Your task to perform on an android device: turn on location history Image 0: 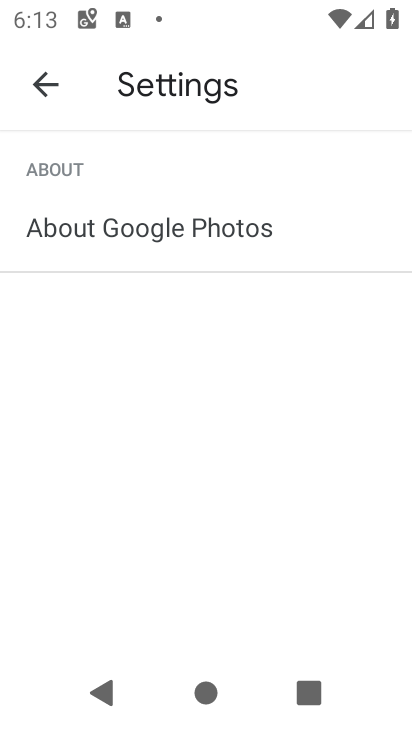
Step 0: press home button
Your task to perform on an android device: turn on location history Image 1: 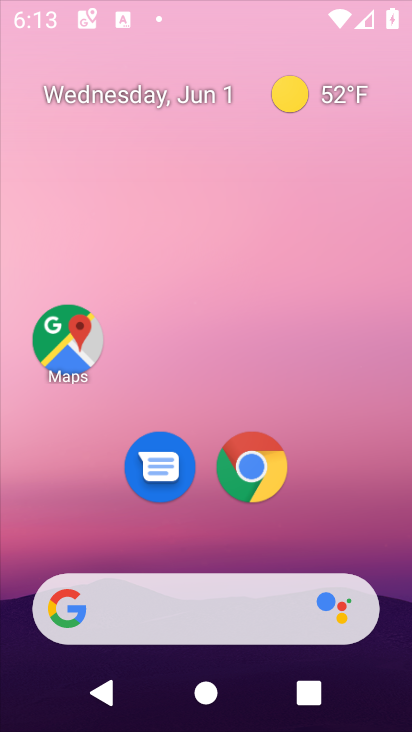
Step 1: drag from (313, 515) to (244, 32)
Your task to perform on an android device: turn on location history Image 2: 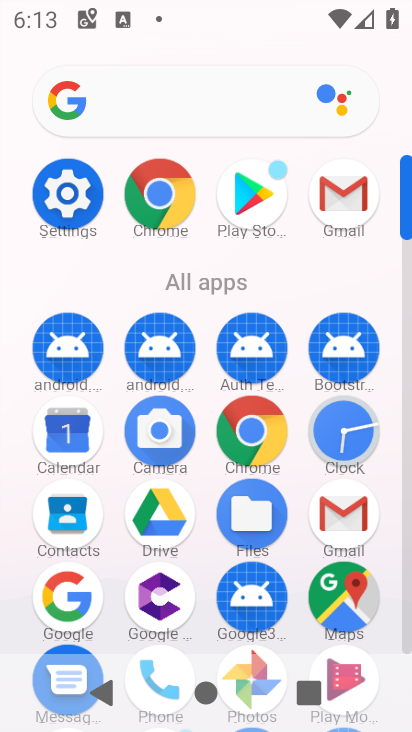
Step 2: click (55, 207)
Your task to perform on an android device: turn on location history Image 3: 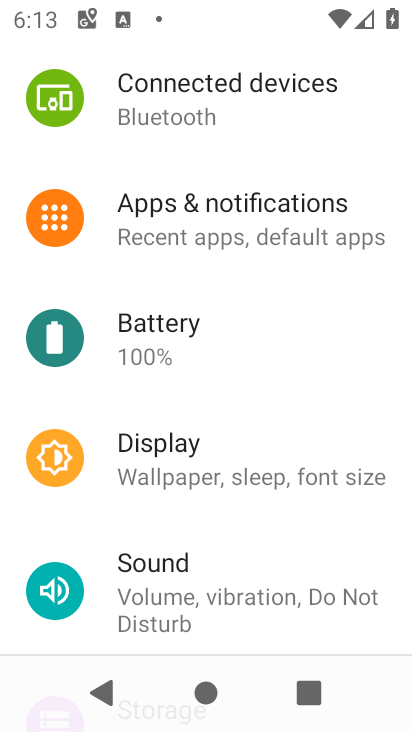
Step 3: drag from (245, 471) to (263, 52)
Your task to perform on an android device: turn on location history Image 4: 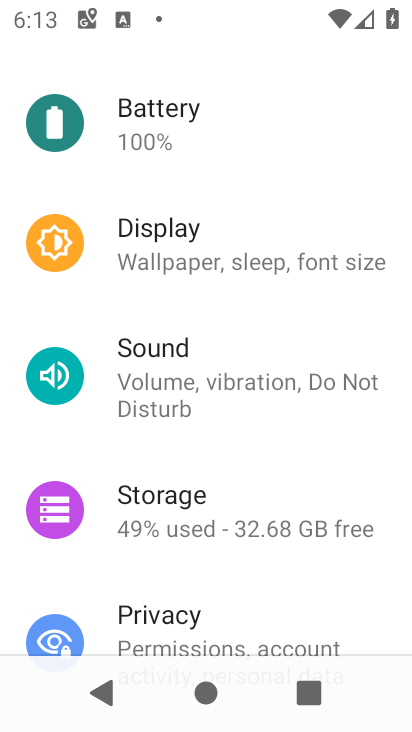
Step 4: drag from (271, 491) to (237, 71)
Your task to perform on an android device: turn on location history Image 5: 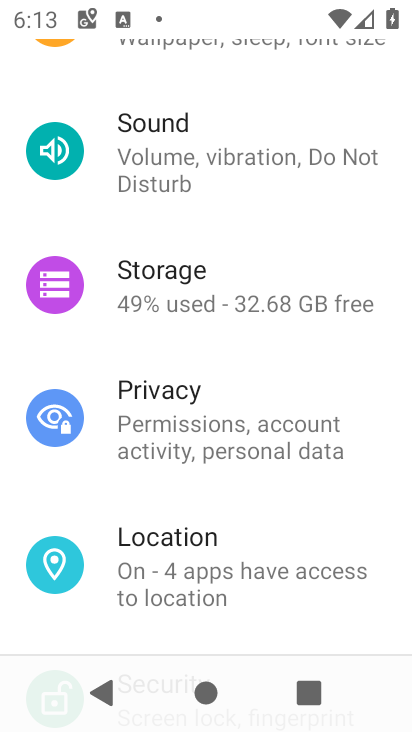
Step 5: click (221, 537)
Your task to perform on an android device: turn on location history Image 6: 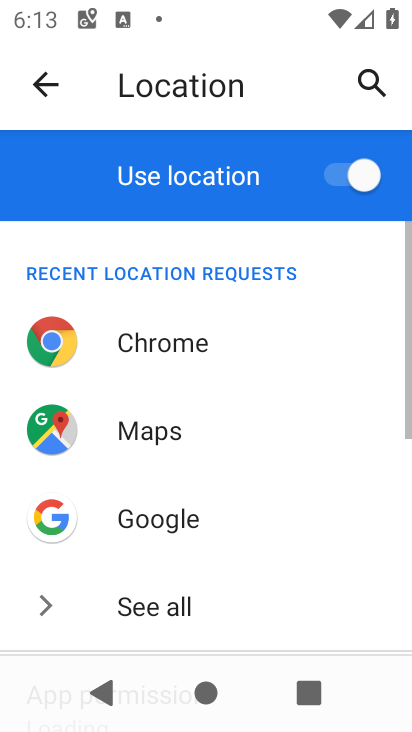
Step 6: drag from (309, 548) to (271, 34)
Your task to perform on an android device: turn on location history Image 7: 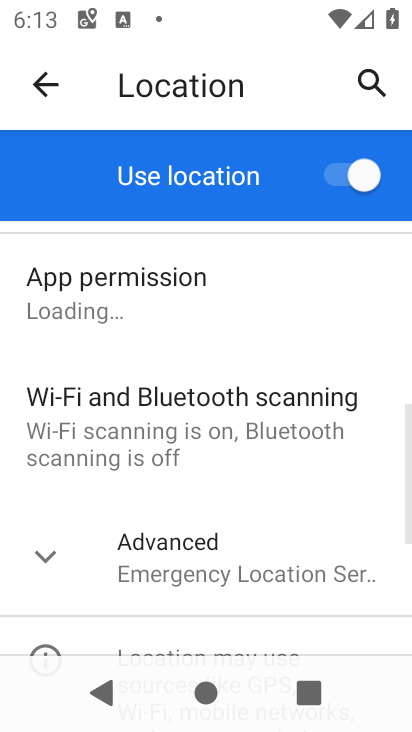
Step 7: drag from (225, 511) to (245, 271)
Your task to perform on an android device: turn on location history Image 8: 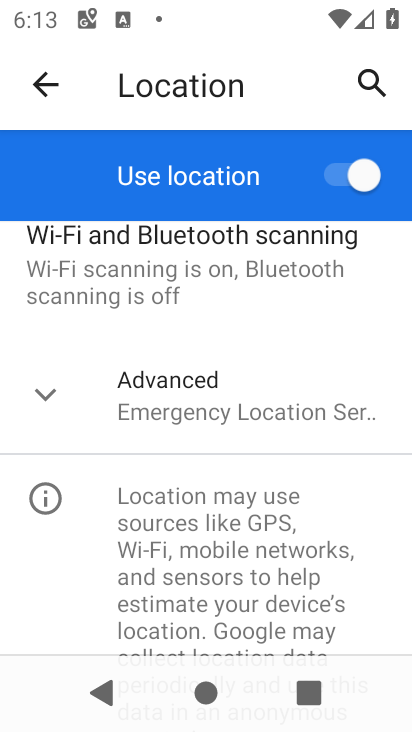
Step 8: click (223, 386)
Your task to perform on an android device: turn on location history Image 9: 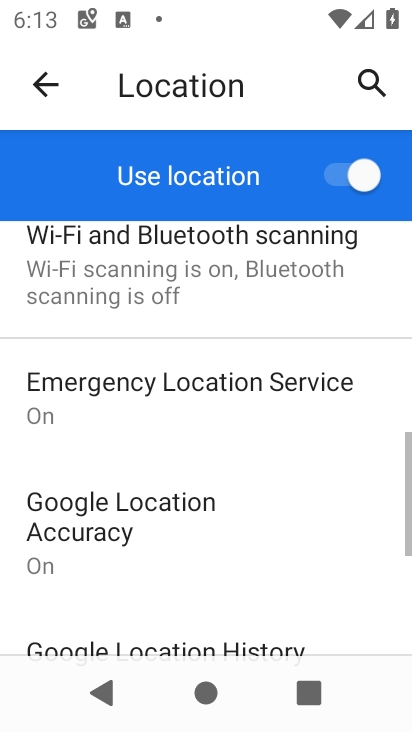
Step 9: drag from (283, 605) to (266, 231)
Your task to perform on an android device: turn on location history Image 10: 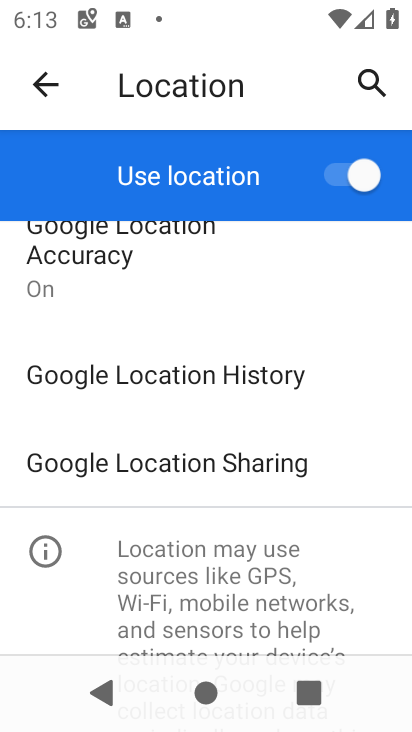
Step 10: click (239, 378)
Your task to perform on an android device: turn on location history Image 11: 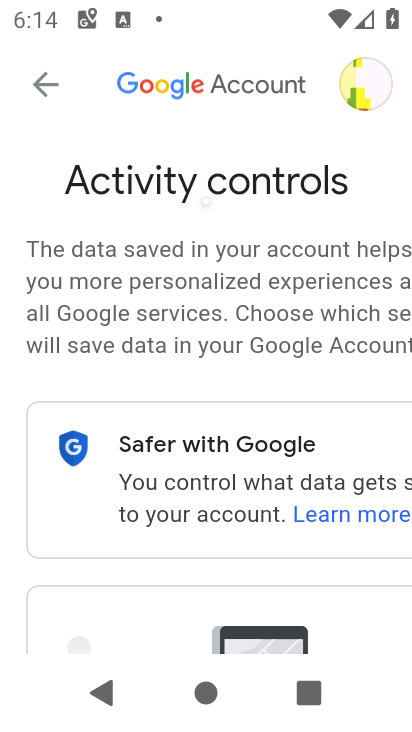
Step 11: drag from (206, 428) to (202, 86)
Your task to perform on an android device: turn on location history Image 12: 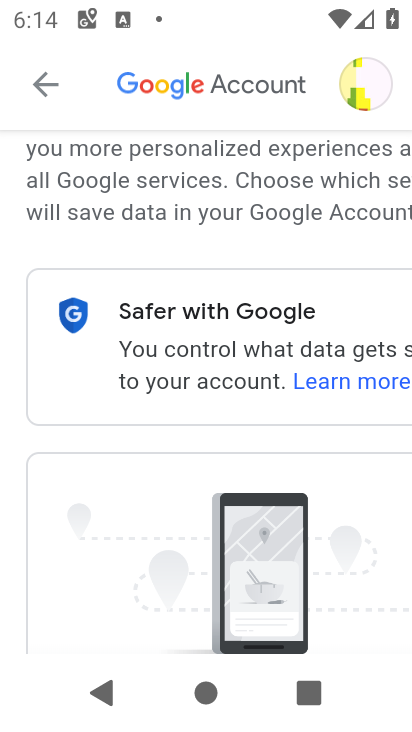
Step 12: drag from (231, 540) to (250, 120)
Your task to perform on an android device: turn on location history Image 13: 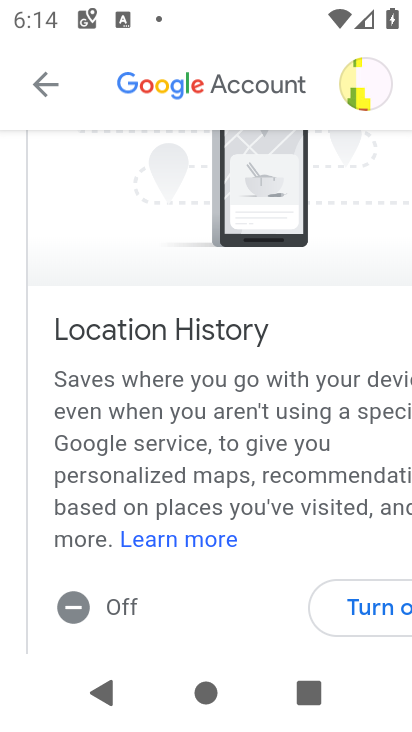
Step 13: click (379, 604)
Your task to perform on an android device: turn on location history Image 14: 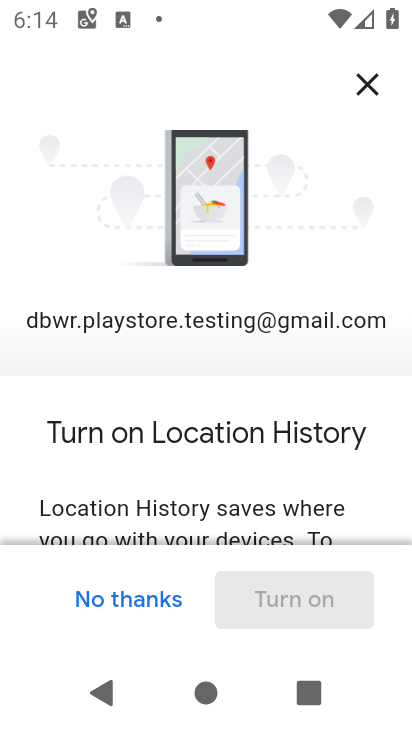
Step 14: drag from (202, 498) to (135, 2)
Your task to perform on an android device: turn on location history Image 15: 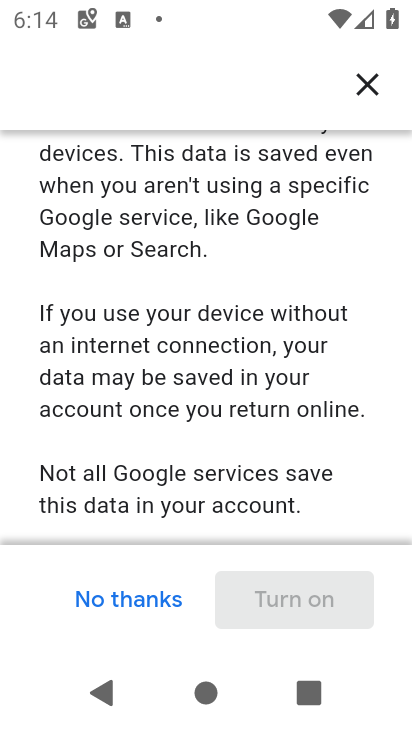
Step 15: click (275, 30)
Your task to perform on an android device: turn on location history Image 16: 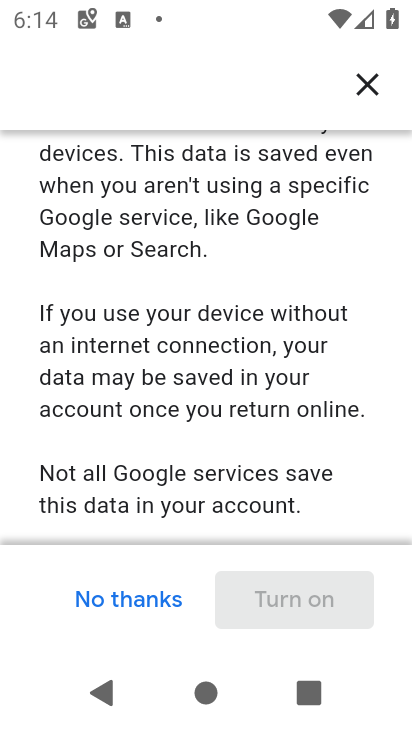
Step 16: drag from (288, 490) to (279, 151)
Your task to perform on an android device: turn on location history Image 17: 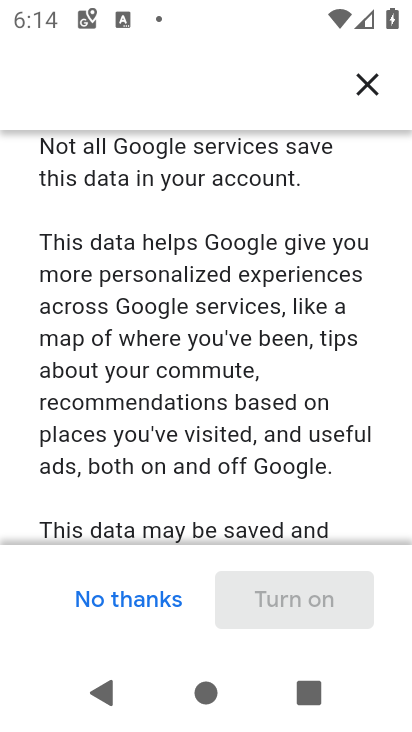
Step 17: drag from (296, 492) to (287, 131)
Your task to perform on an android device: turn on location history Image 18: 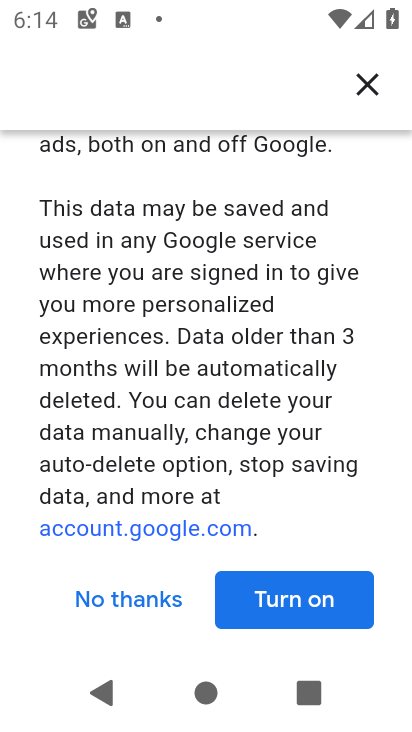
Step 18: click (311, 609)
Your task to perform on an android device: turn on location history Image 19: 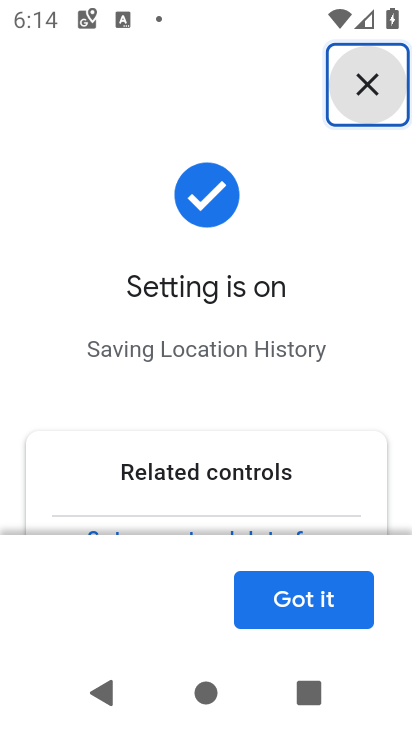
Step 19: click (324, 600)
Your task to perform on an android device: turn on location history Image 20: 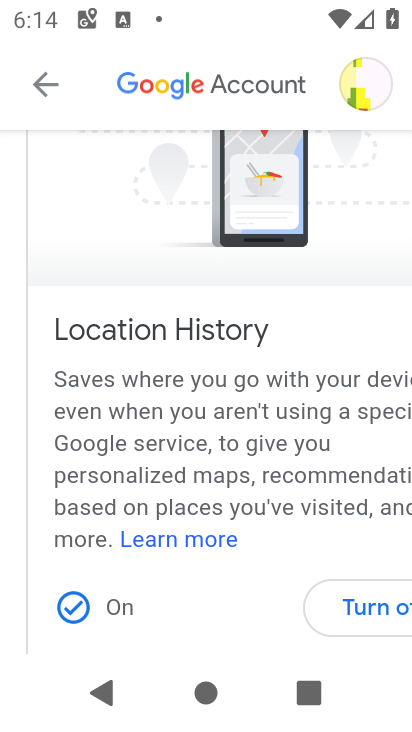
Step 20: task complete